Your task to perform on an android device: change the clock display to show seconds Image 0: 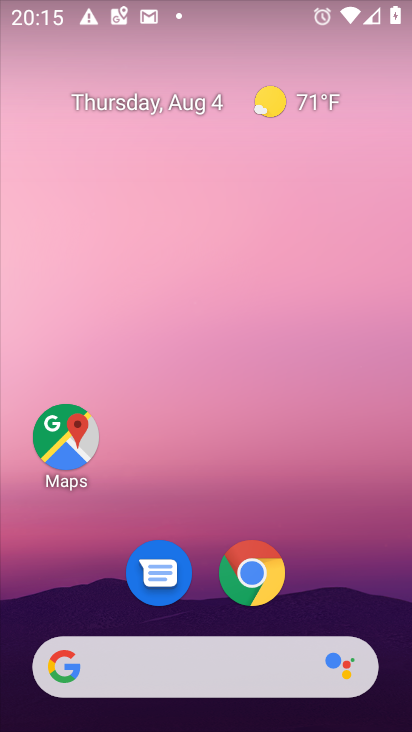
Step 0: drag from (244, 659) to (302, 73)
Your task to perform on an android device: change the clock display to show seconds Image 1: 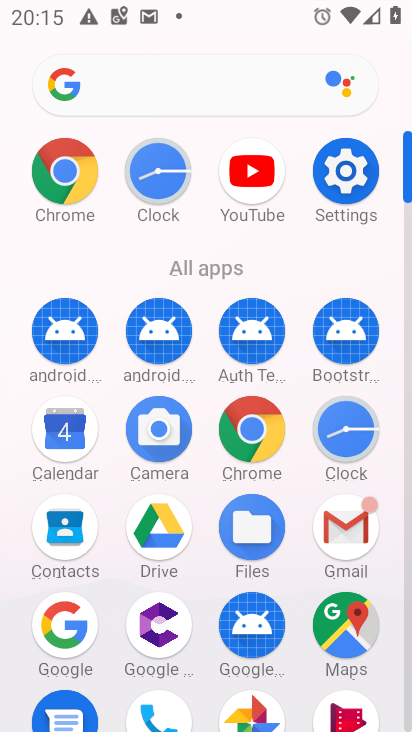
Step 1: click (356, 443)
Your task to perform on an android device: change the clock display to show seconds Image 2: 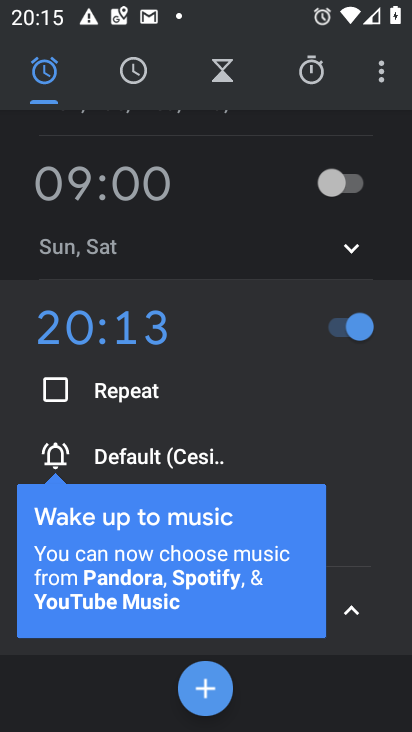
Step 2: drag from (379, 74) to (356, 112)
Your task to perform on an android device: change the clock display to show seconds Image 3: 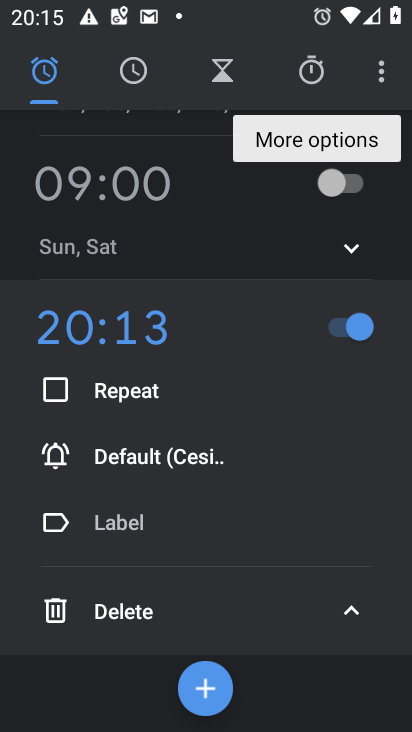
Step 3: click (386, 85)
Your task to perform on an android device: change the clock display to show seconds Image 4: 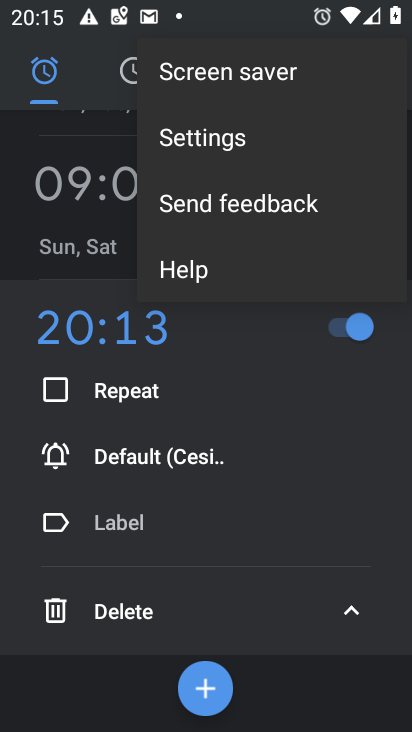
Step 4: click (263, 137)
Your task to perform on an android device: change the clock display to show seconds Image 5: 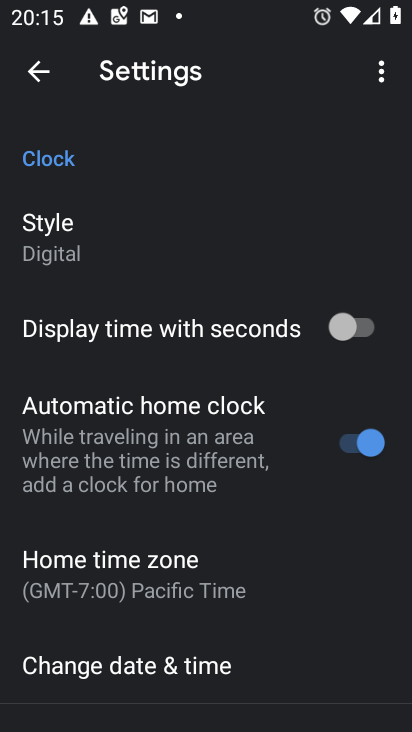
Step 5: drag from (238, 622) to (394, 125)
Your task to perform on an android device: change the clock display to show seconds Image 6: 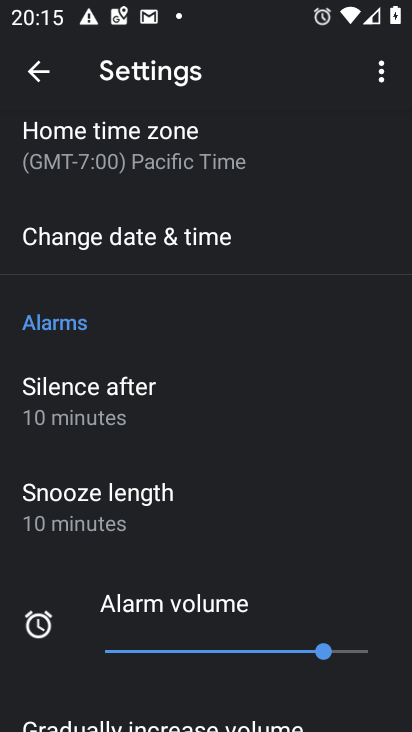
Step 6: drag from (266, 275) to (238, 686)
Your task to perform on an android device: change the clock display to show seconds Image 7: 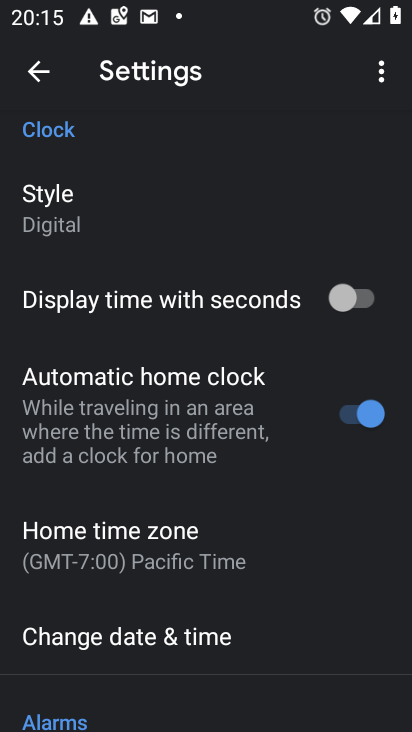
Step 7: click (353, 296)
Your task to perform on an android device: change the clock display to show seconds Image 8: 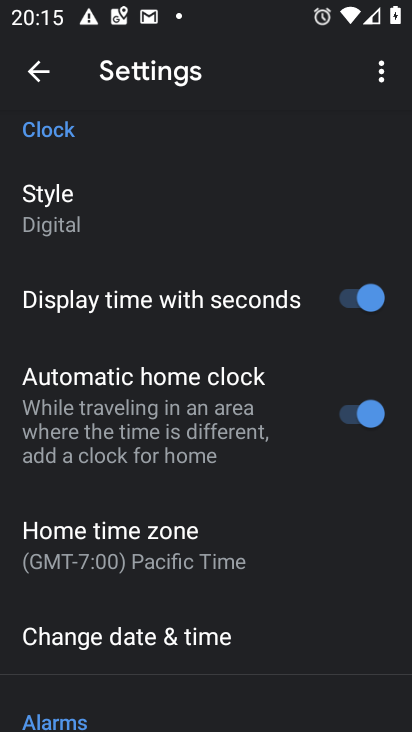
Step 8: task complete